Your task to perform on an android device: Search for bose quietcomfort 35 on costco, select the first entry, add it to the cart, then select checkout. Image 0: 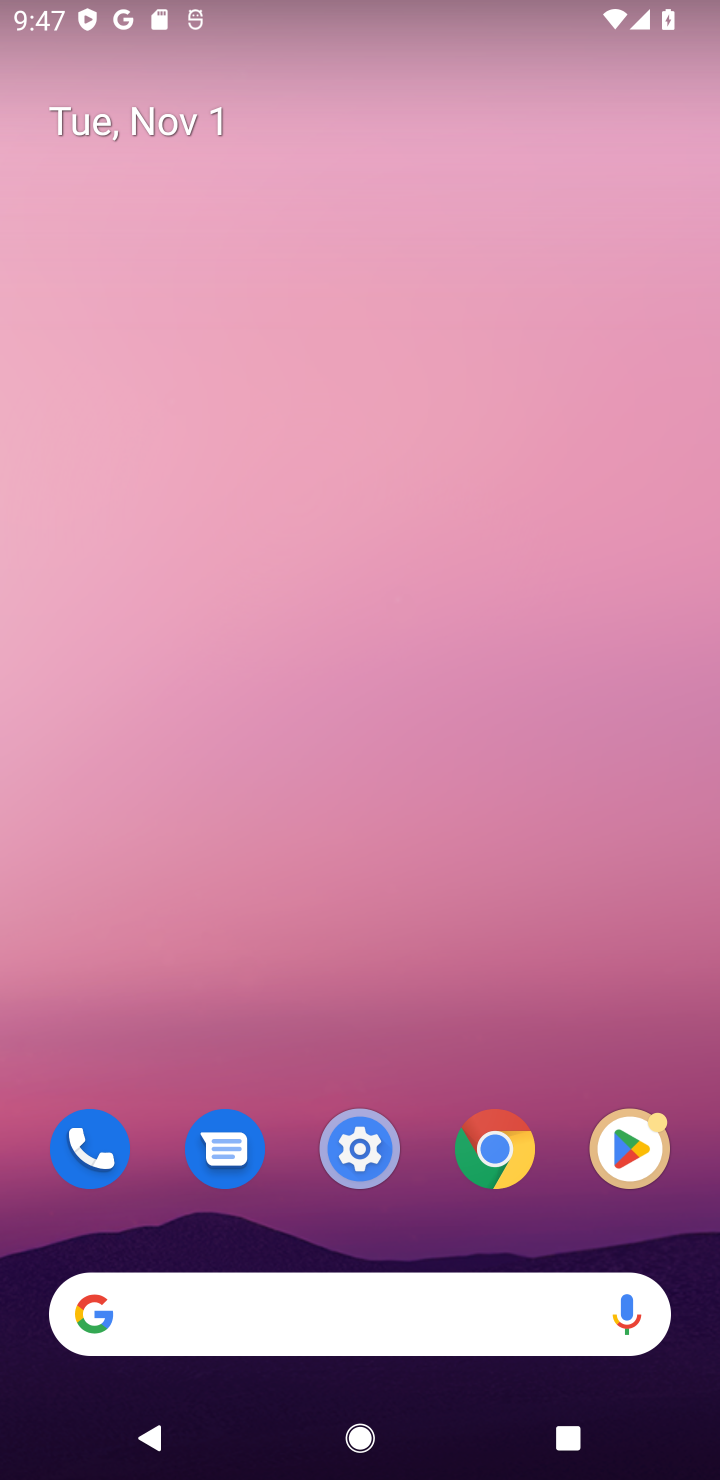
Step 0: press home button
Your task to perform on an android device: Search for bose quietcomfort 35 on costco, select the first entry, add it to the cart, then select checkout. Image 1: 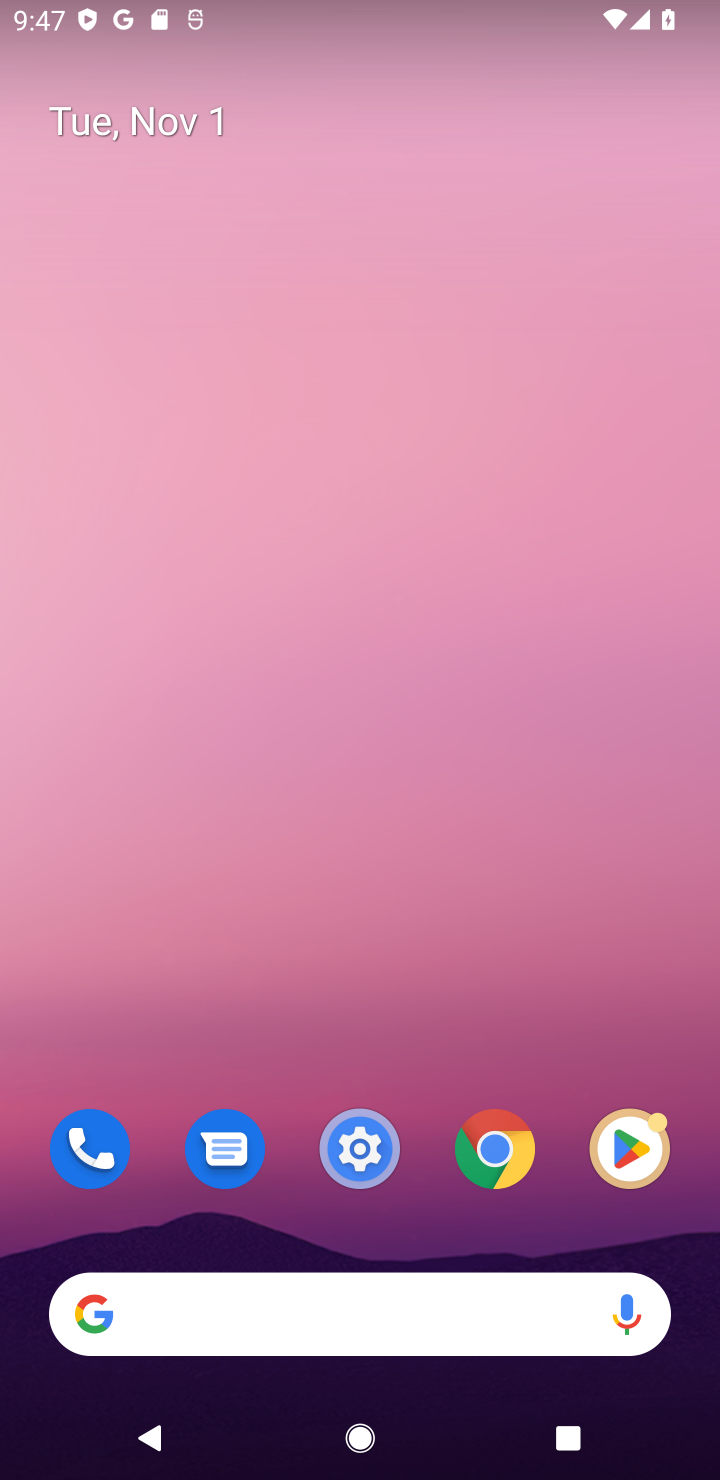
Step 1: press home button
Your task to perform on an android device: Search for bose quietcomfort 35 on costco, select the first entry, add it to the cart, then select checkout. Image 2: 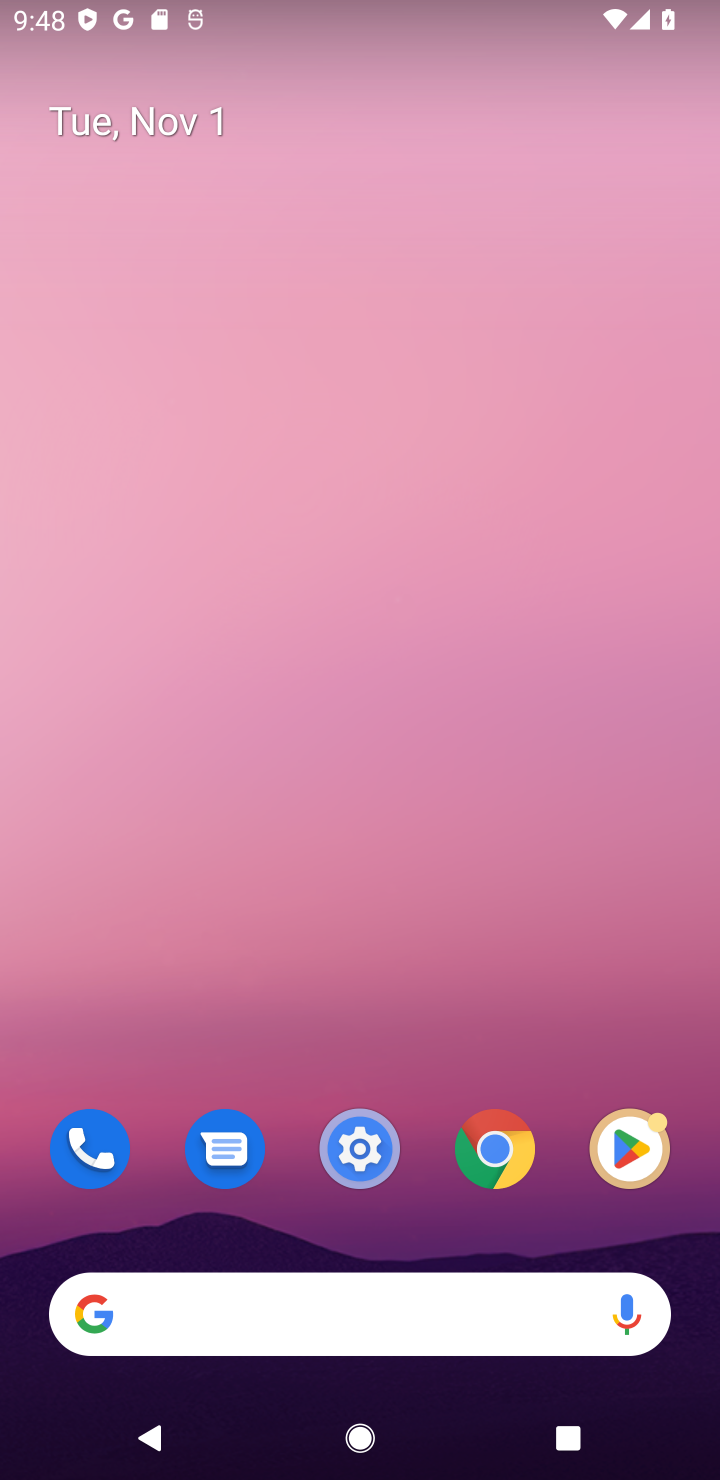
Step 2: click (164, 1308)
Your task to perform on an android device: Search for bose quietcomfort 35 on costco, select the first entry, add it to the cart, then select checkout. Image 3: 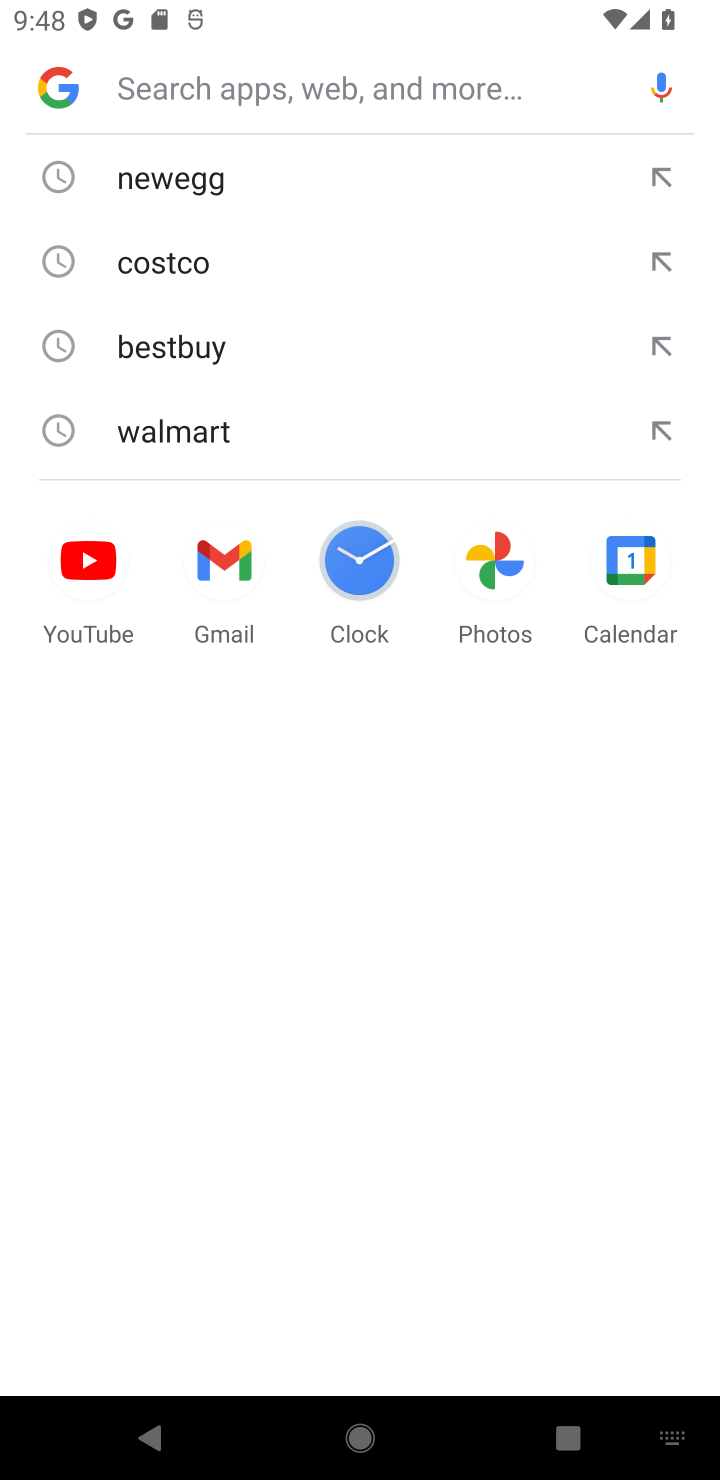
Step 3: type "costco"
Your task to perform on an android device: Search for bose quietcomfort 35 on costco, select the first entry, add it to the cart, then select checkout. Image 4: 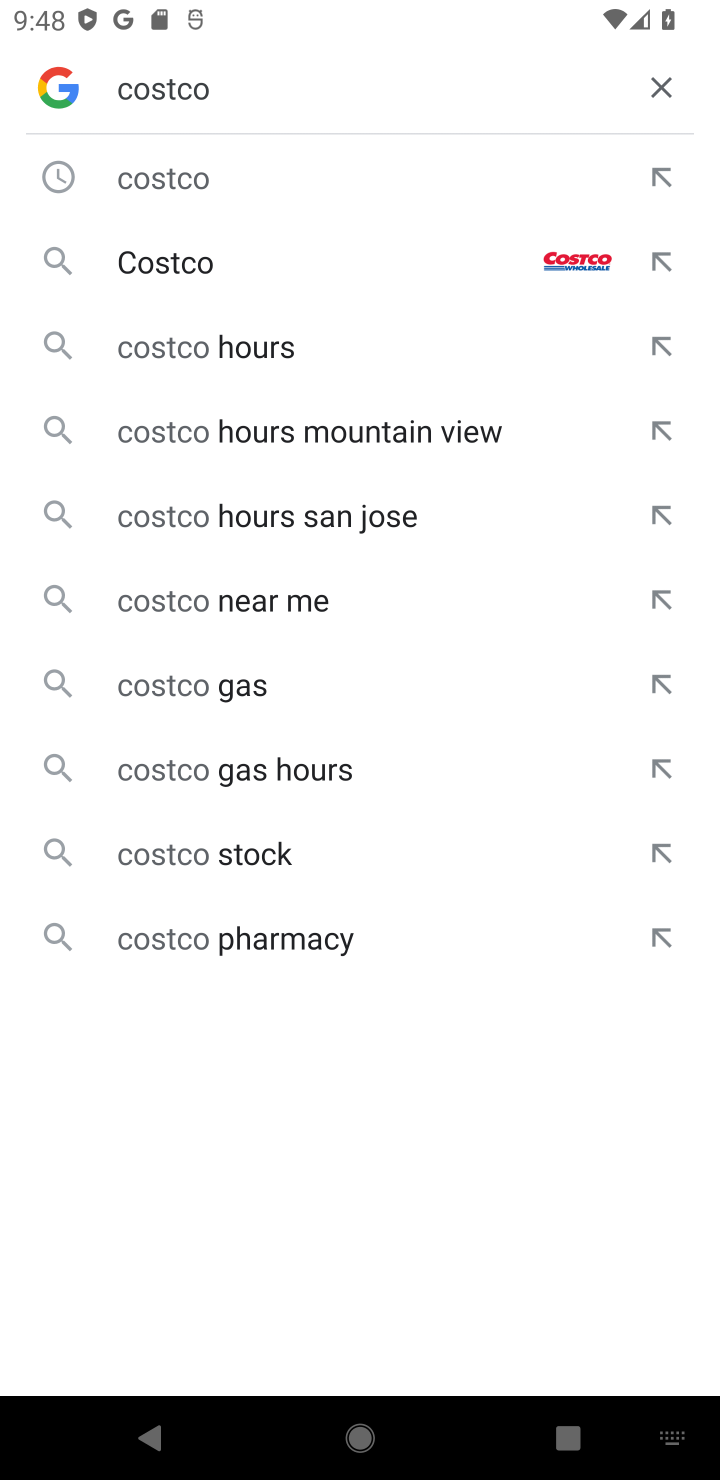
Step 4: press enter
Your task to perform on an android device: Search for bose quietcomfort 35 on costco, select the first entry, add it to the cart, then select checkout. Image 5: 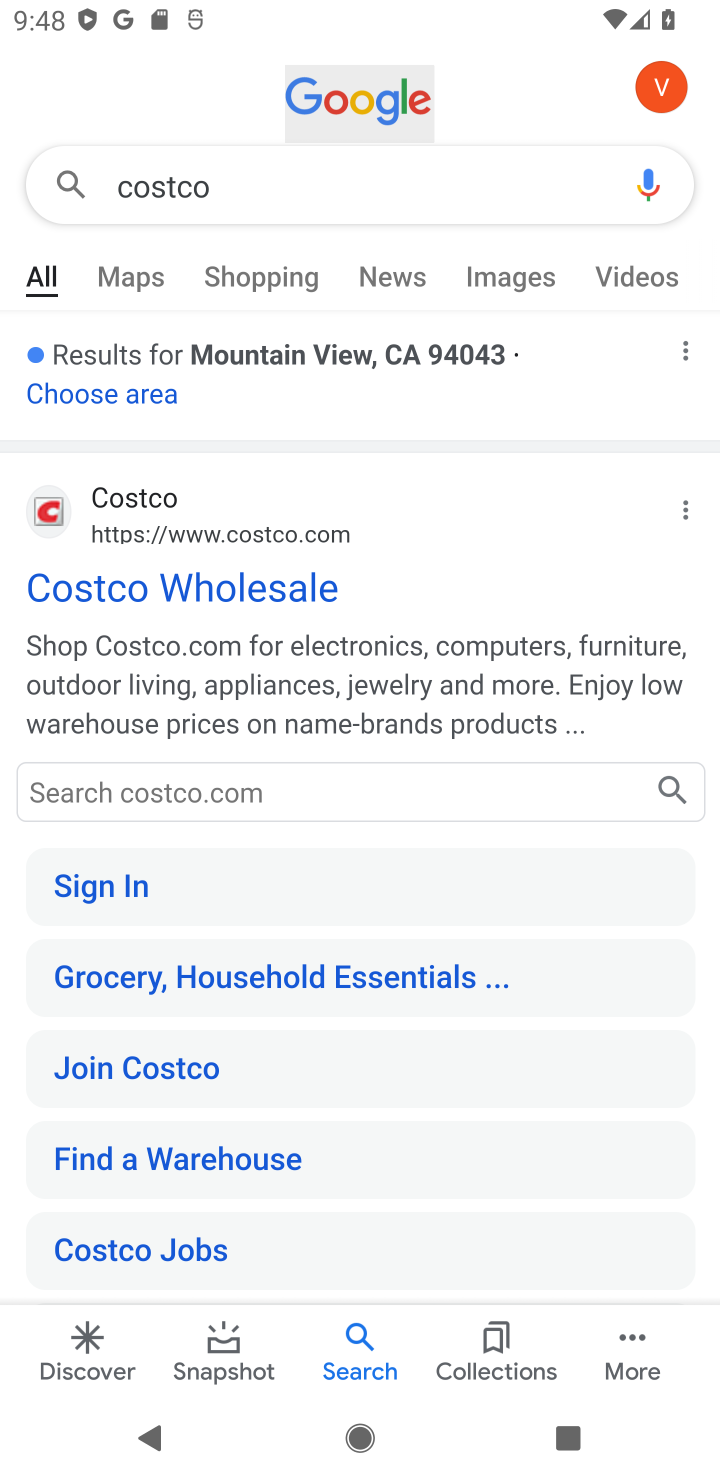
Step 5: click (165, 583)
Your task to perform on an android device: Search for bose quietcomfort 35 on costco, select the first entry, add it to the cart, then select checkout. Image 6: 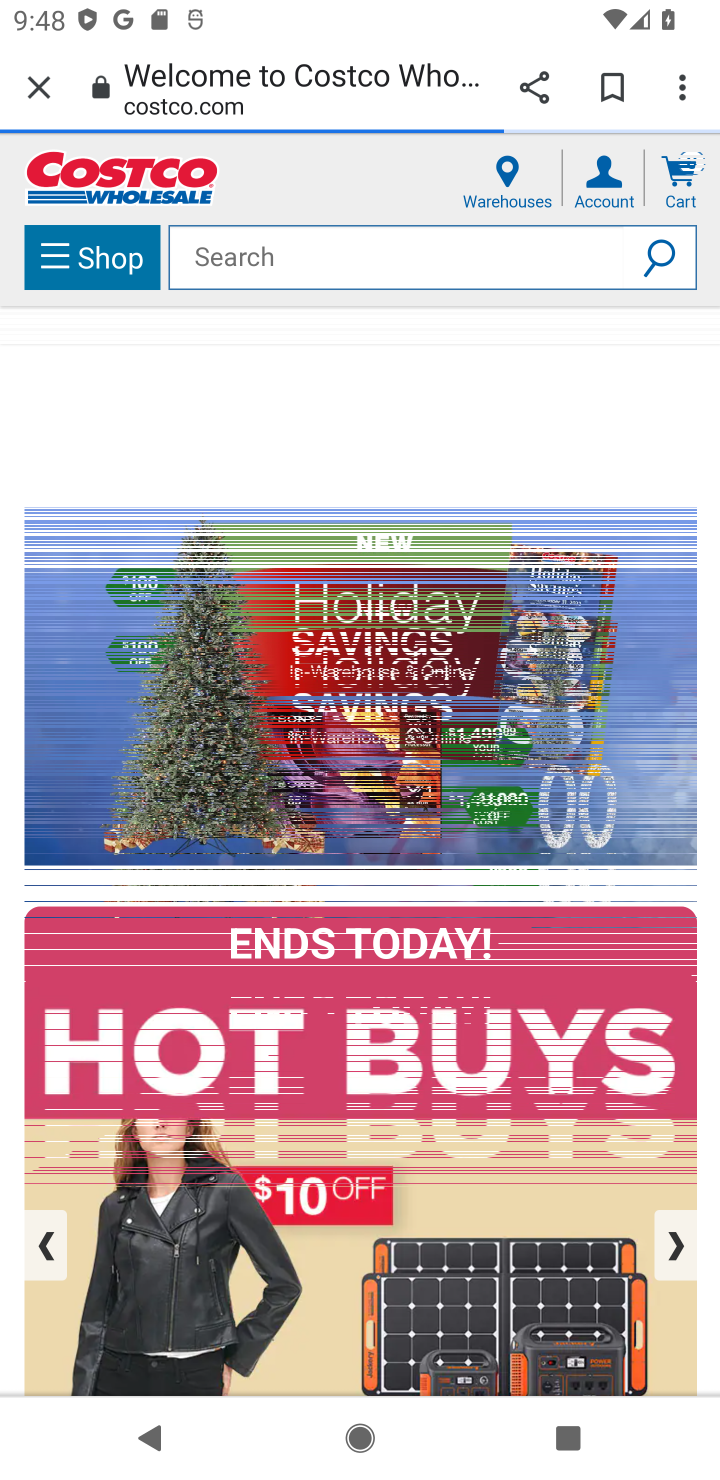
Step 6: click (262, 252)
Your task to perform on an android device: Search for bose quietcomfort 35 on costco, select the first entry, add it to the cart, then select checkout. Image 7: 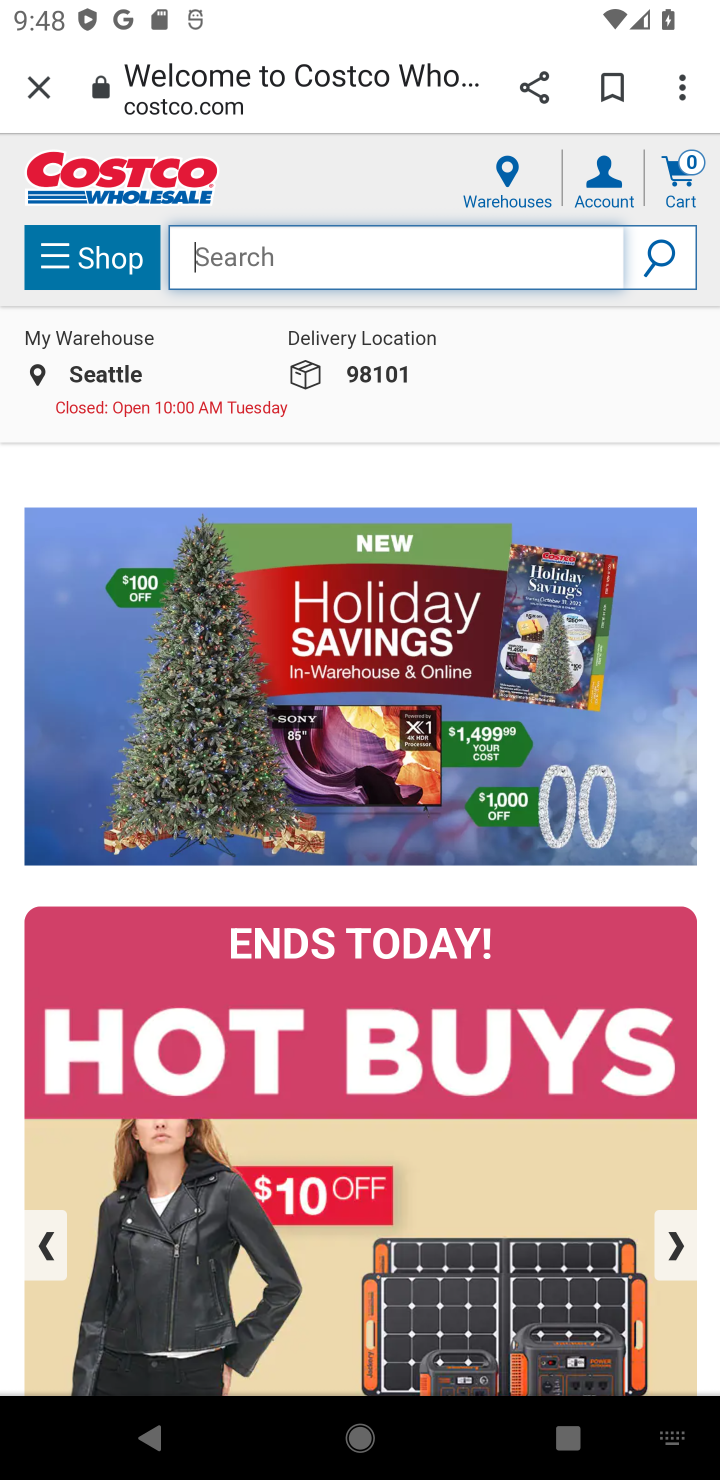
Step 7: type " bose quietcomfort 35"
Your task to perform on an android device: Search for bose quietcomfort 35 on costco, select the first entry, add it to the cart, then select checkout. Image 8: 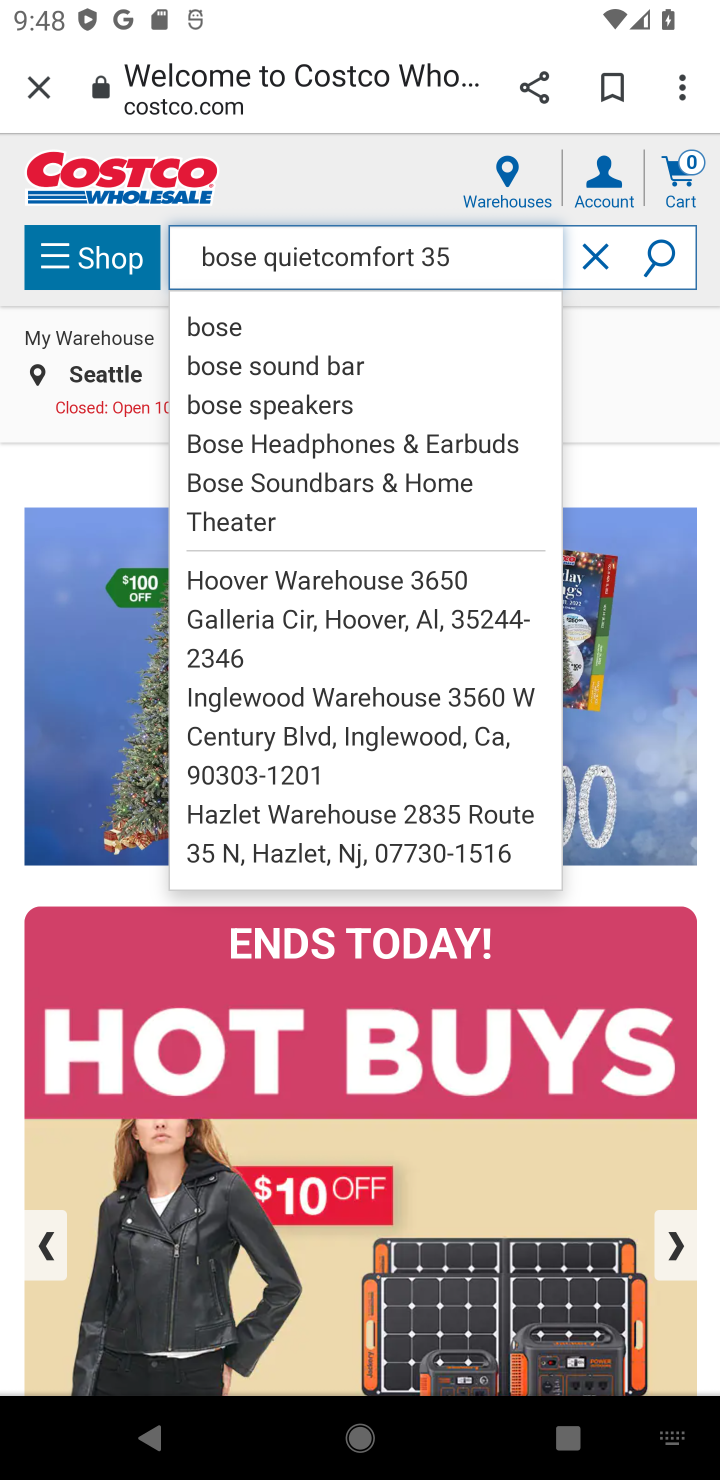
Step 8: click (664, 253)
Your task to perform on an android device: Search for bose quietcomfort 35 on costco, select the first entry, add it to the cart, then select checkout. Image 9: 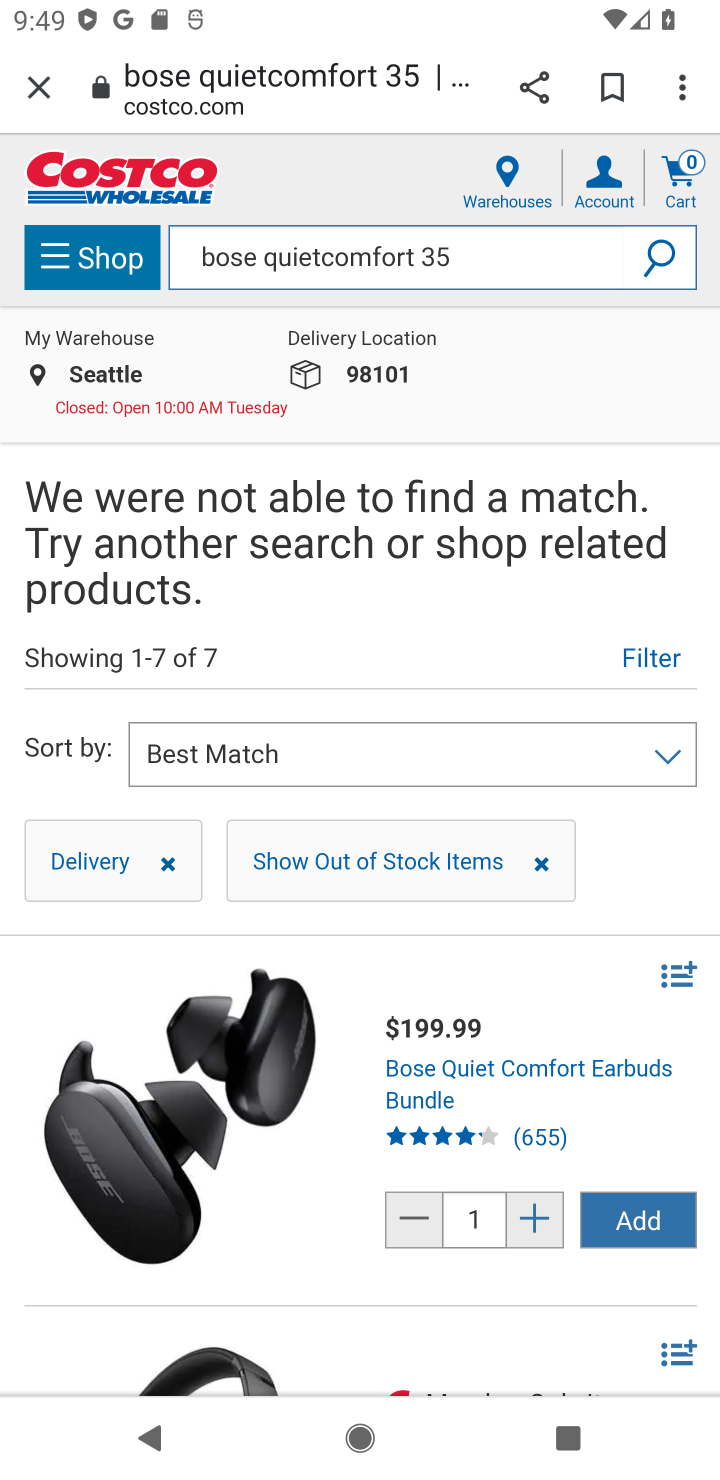
Step 9: task complete